Your task to perform on an android device: turn off javascript in the chrome app Image 0: 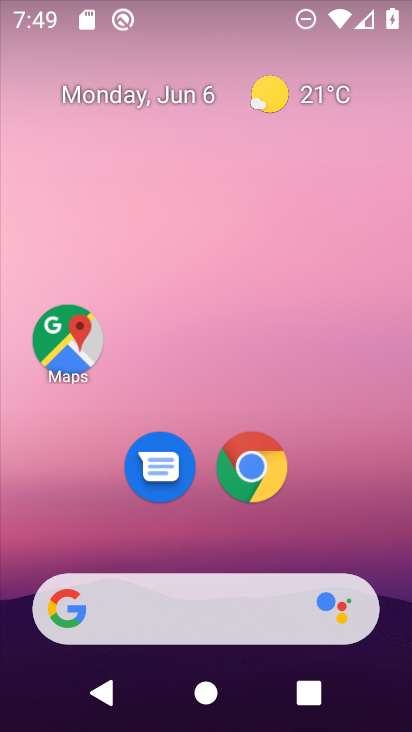
Step 0: drag from (357, 527) to (406, 90)
Your task to perform on an android device: turn off javascript in the chrome app Image 1: 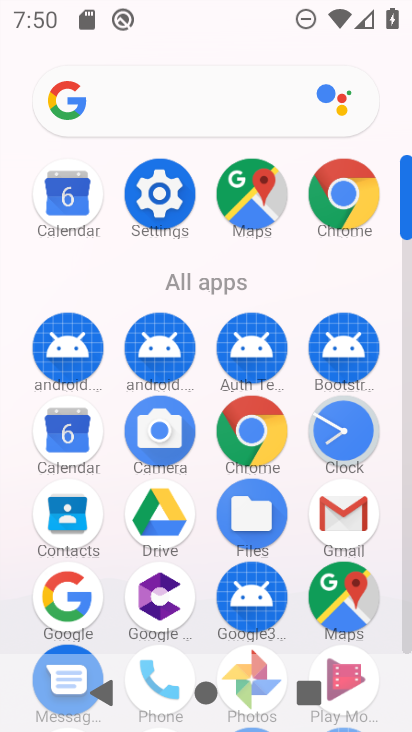
Step 1: click (261, 434)
Your task to perform on an android device: turn off javascript in the chrome app Image 2: 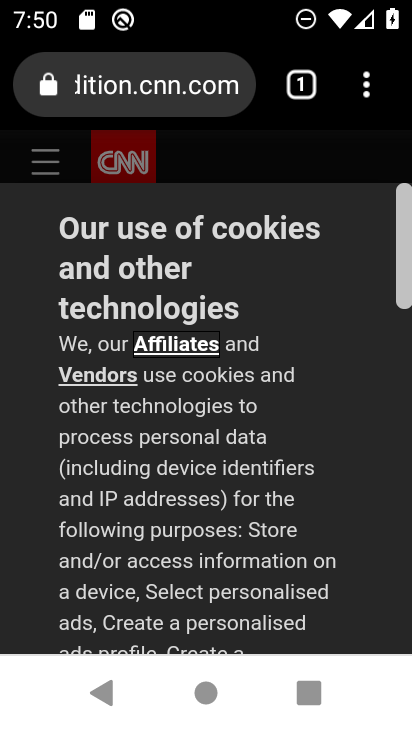
Step 2: click (367, 100)
Your task to perform on an android device: turn off javascript in the chrome app Image 3: 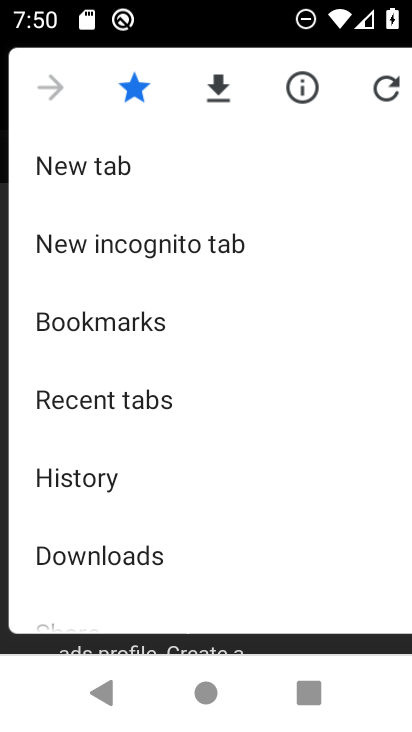
Step 3: drag from (345, 413) to (362, 281)
Your task to perform on an android device: turn off javascript in the chrome app Image 4: 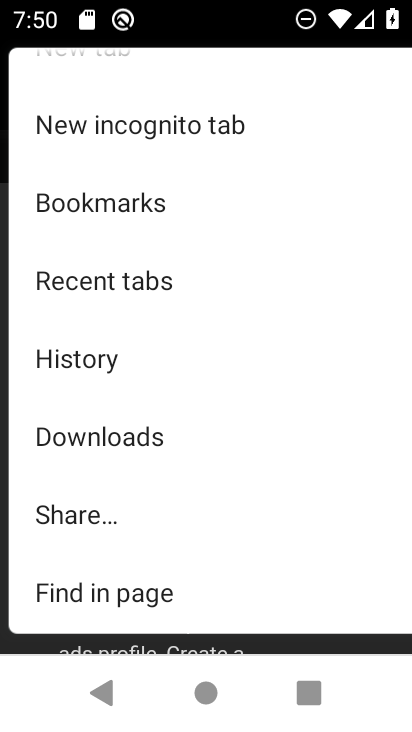
Step 4: drag from (338, 412) to (338, 181)
Your task to perform on an android device: turn off javascript in the chrome app Image 5: 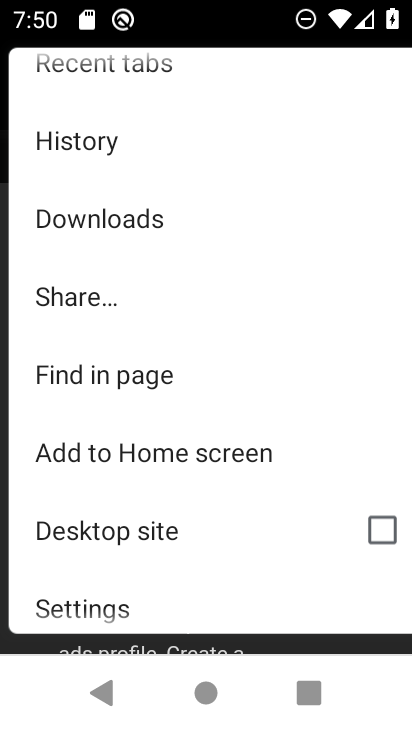
Step 5: drag from (291, 515) to (279, 294)
Your task to perform on an android device: turn off javascript in the chrome app Image 6: 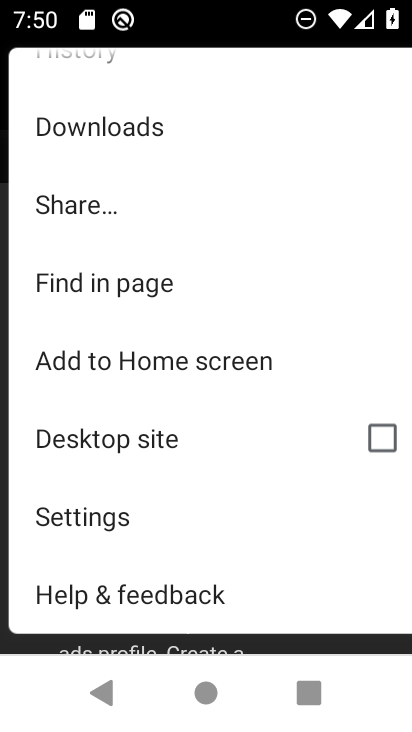
Step 6: click (133, 526)
Your task to perform on an android device: turn off javascript in the chrome app Image 7: 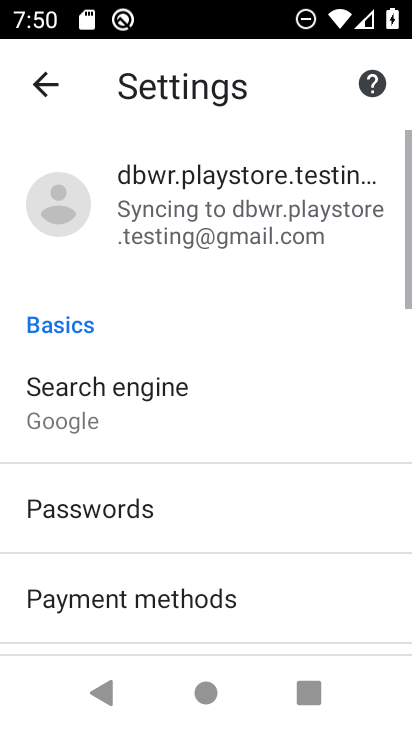
Step 7: drag from (313, 504) to (328, 358)
Your task to perform on an android device: turn off javascript in the chrome app Image 8: 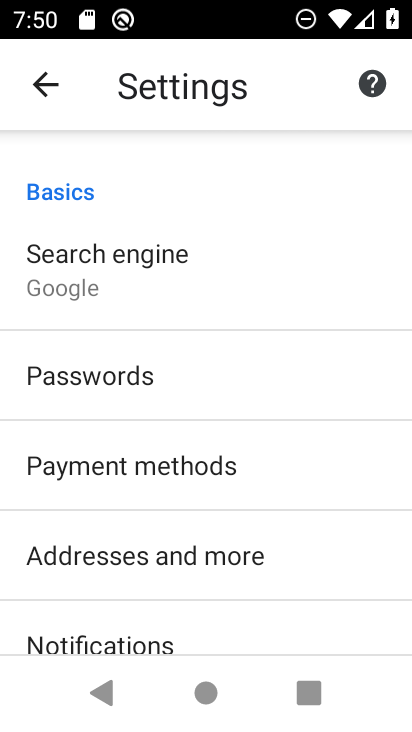
Step 8: drag from (338, 521) to (327, 300)
Your task to perform on an android device: turn off javascript in the chrome app Image 9: 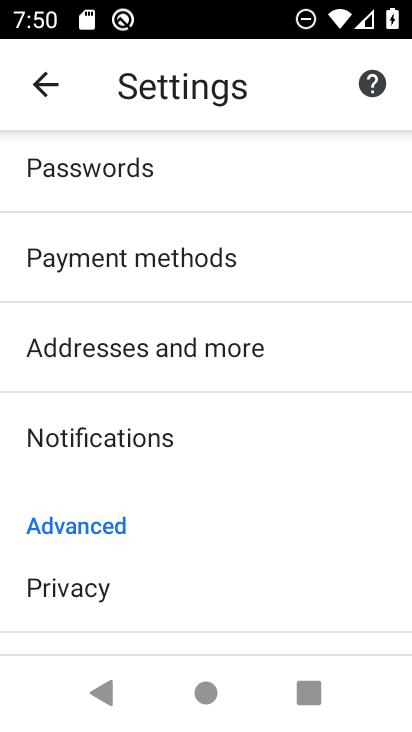
Step 9: drag from (299, 467) to (313, 361)
Your task to perform on an android device: turn off javascript in the chrome app Image 10: 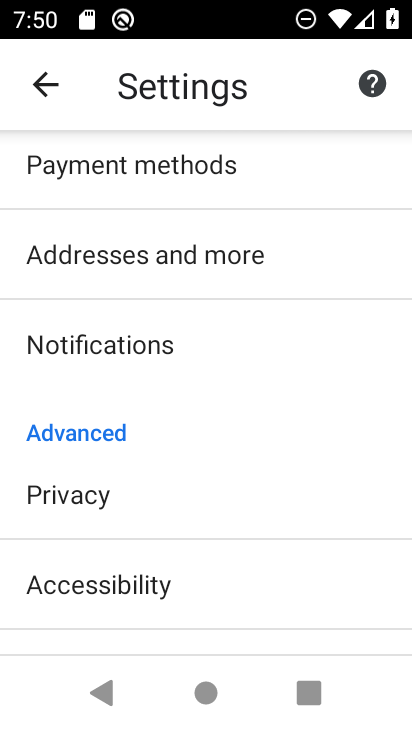
Step 10: drag from (296, 521) to (301, 313)
Your task to perform on an android device: turn off javascript in the chrome app Image 11: 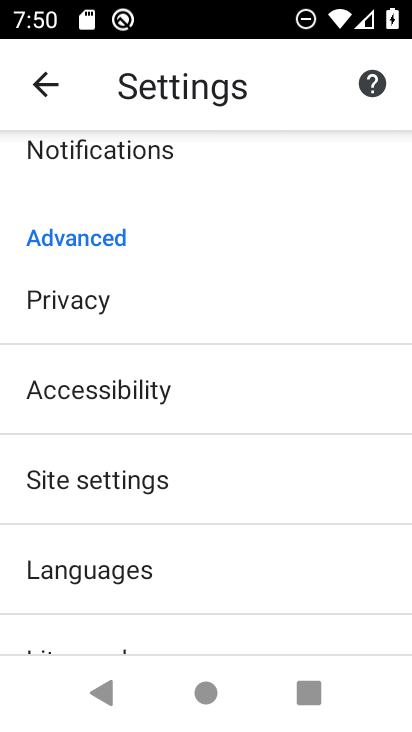
Step 11: click (234, 490)
Your task to perform on an android device: turn off javascript in the chrome app Image 12: 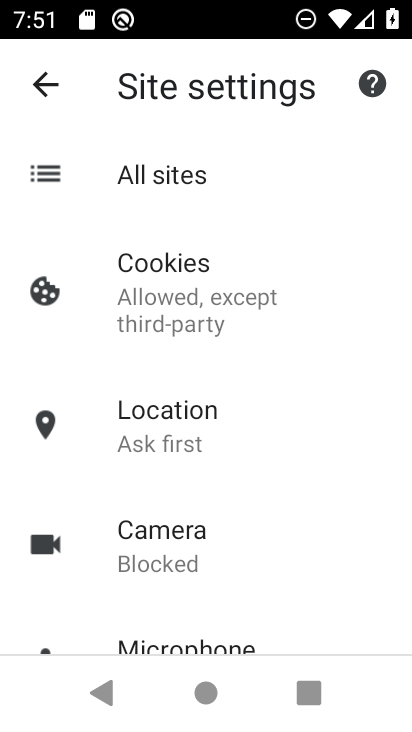
Step 12: drag from (318, 523) to (363, 253)
Your task to perform on an android device: turn off javascript in the chrome app Image 13: 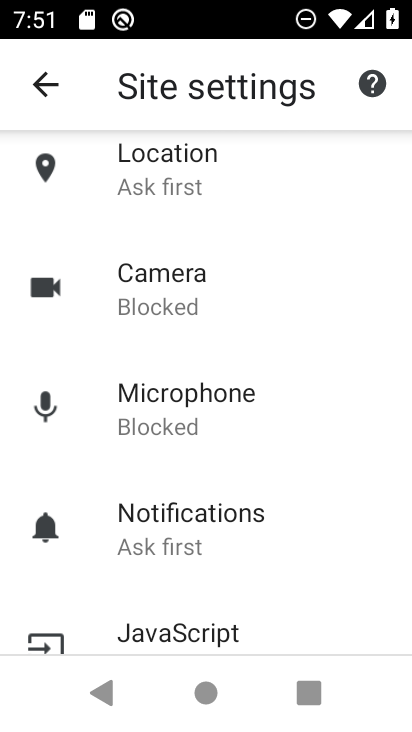
Step 13: drag from (324, 529) to (332, 323)
Your task to perform on an android device: turn off javascript in the chrome app Image 14: 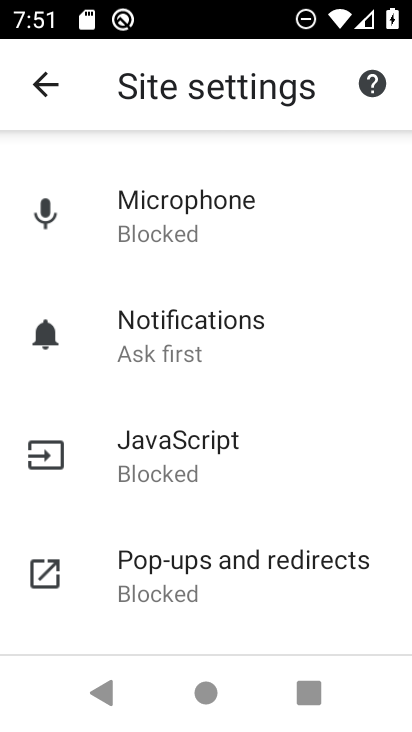
Step 14: click (224, 476)
Your task to perform on an android device: turn off javascript in the chrome app Image 15: 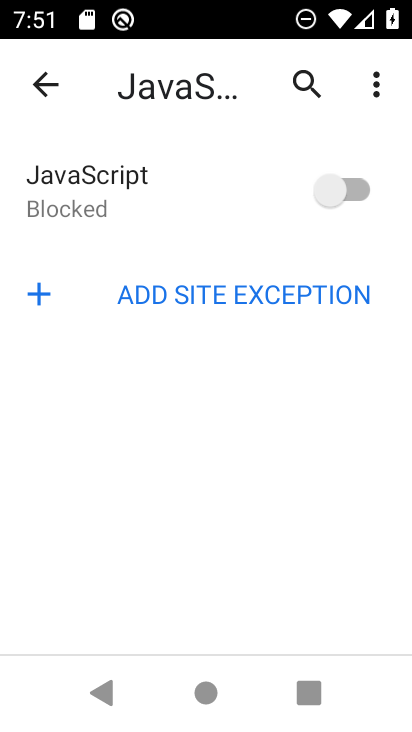
Step 15: task complete